Your task to perform on an android device: see sites visited before in the chrome app Image 0: 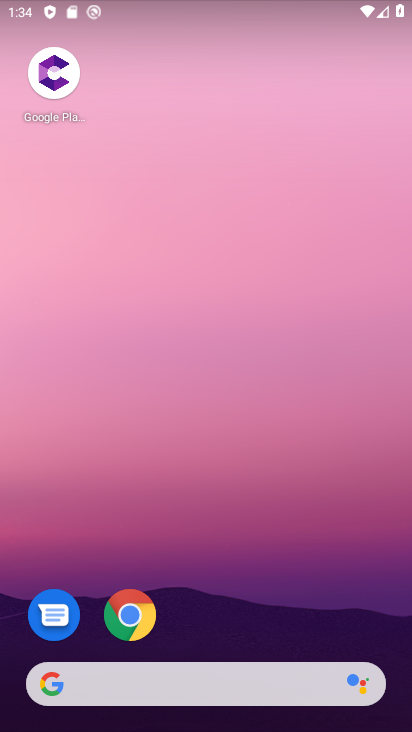
Step 0: drag from (218, 635) to (202, 96)
Your task to perform on an android device: see sites visited before in the chrome app Image 1: 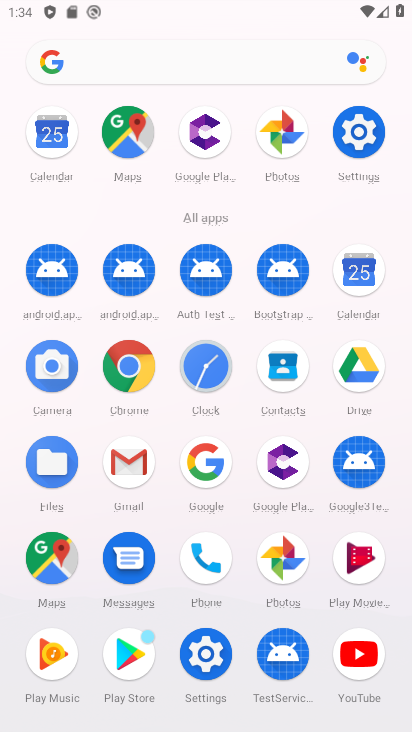
Step 1: click (129, 357)
Your task to perform on an android device: see sites visited before in the chrome app Image 2: 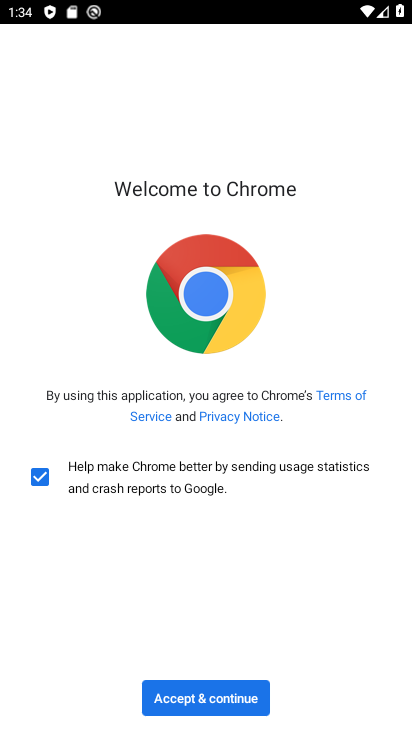
Step 2: click (194, 691)
Your task to perform on an android device: see sites visited before in the chrome app Image 3: 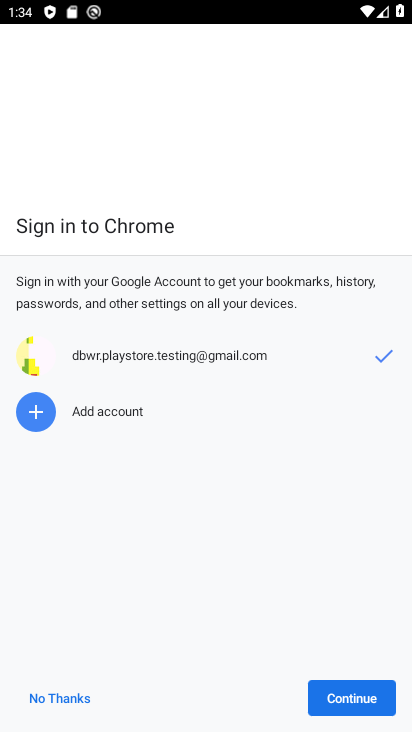
Step 3: click (369, 700)
Your task to perform on an android device: see sites visited before in the chrome app Image 4: 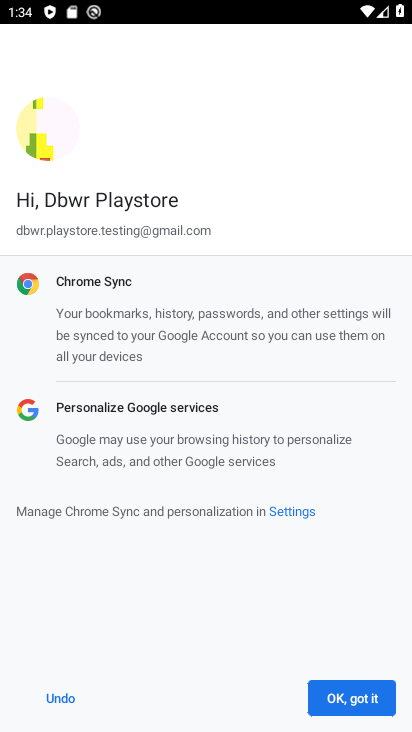
Step 4: click (370, 702)
Your task to perform on an android device: see sites visited before in the chrome app Image 5: 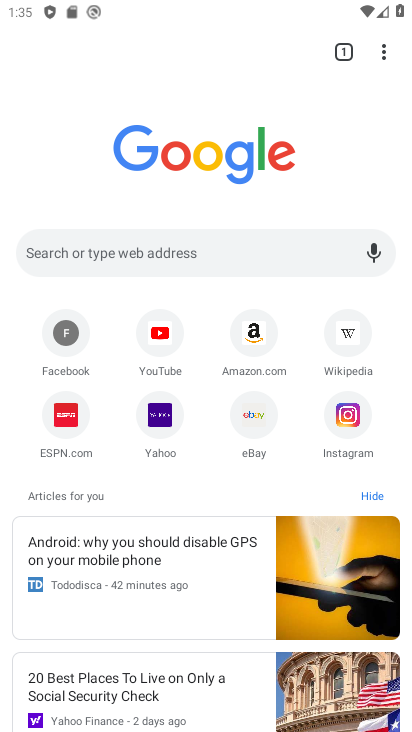
Step 5: click (382, 60)
Your task to perform on an android device: see sites visited before in the chrome app Image 6: 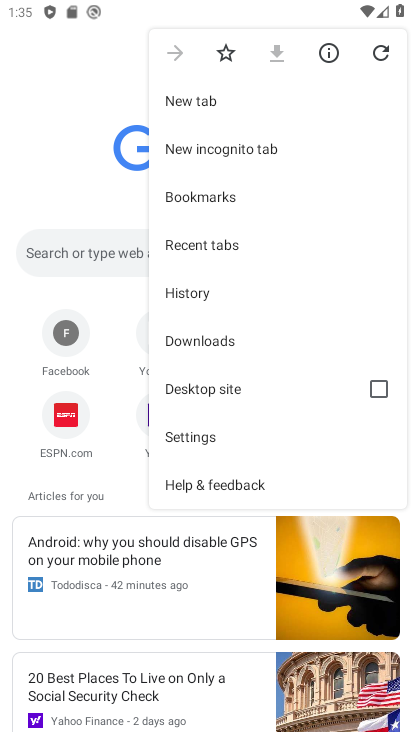
Step 6: click (282, 290)
Your task to perform on an android device: see sites visited before in the chrome app Image 7: 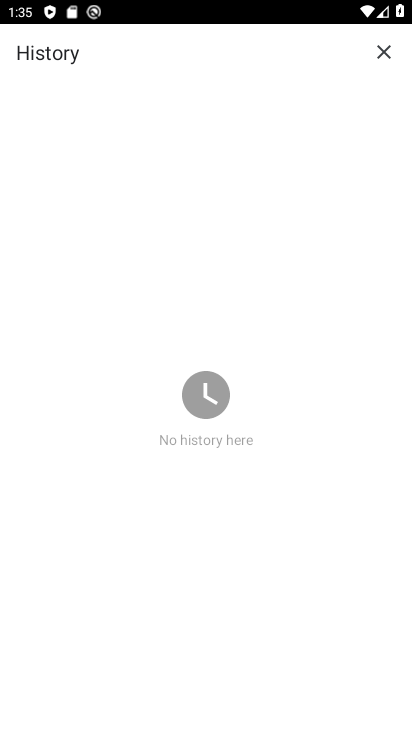
Step 7: task complete